Your task to perform on an android device: Open Amazon Image 0: 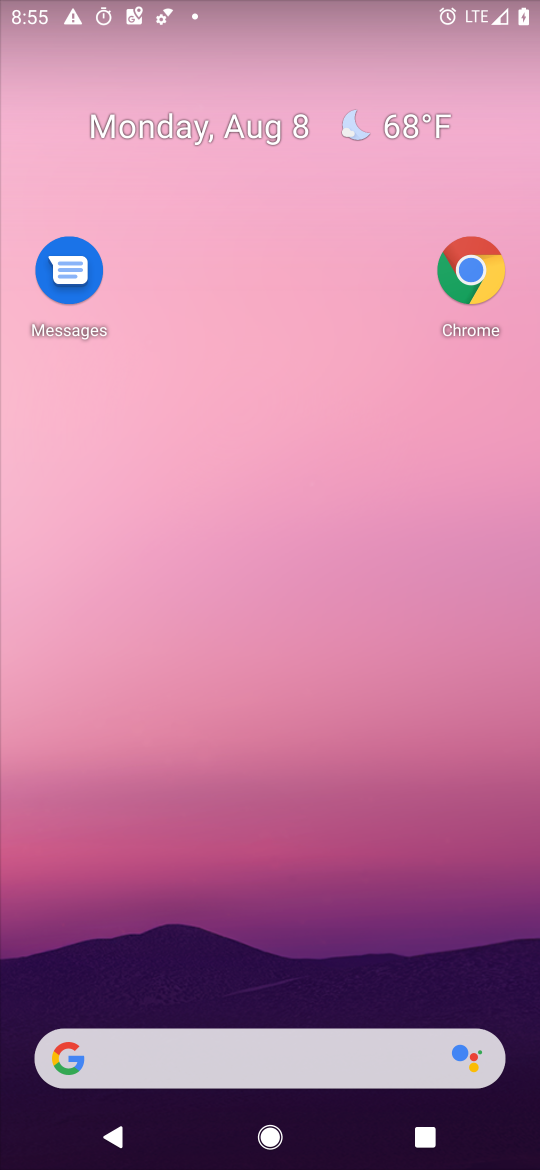
Step 0: drag from (284, 966) to (350, 121)
Your task to perform on an android device: Open Amazon Image 1: 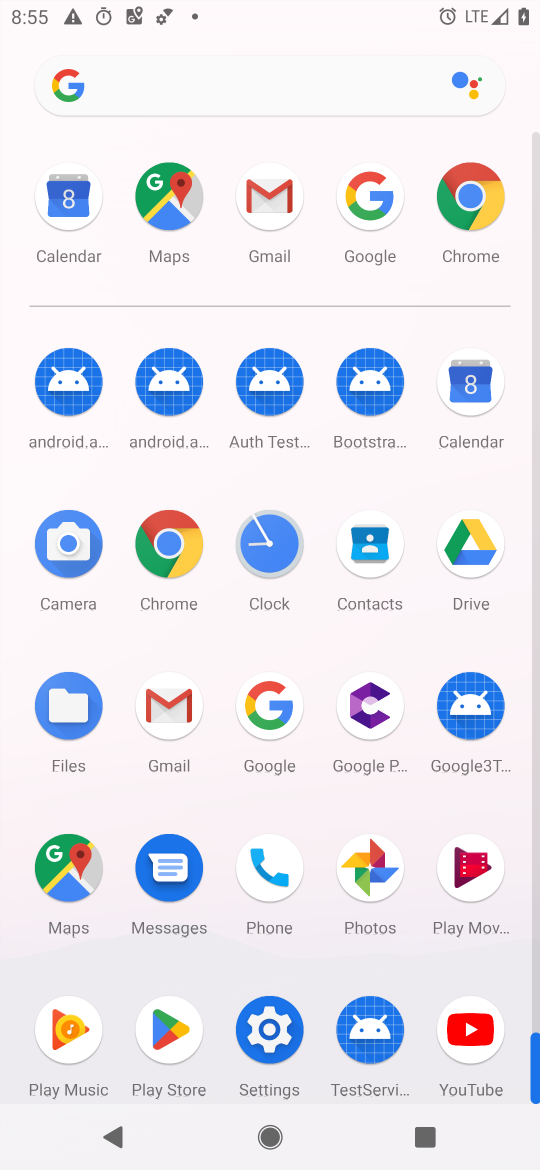
Step 1: click (480, 194)
Your task to perform on an android device: Open Amazon Image 2: 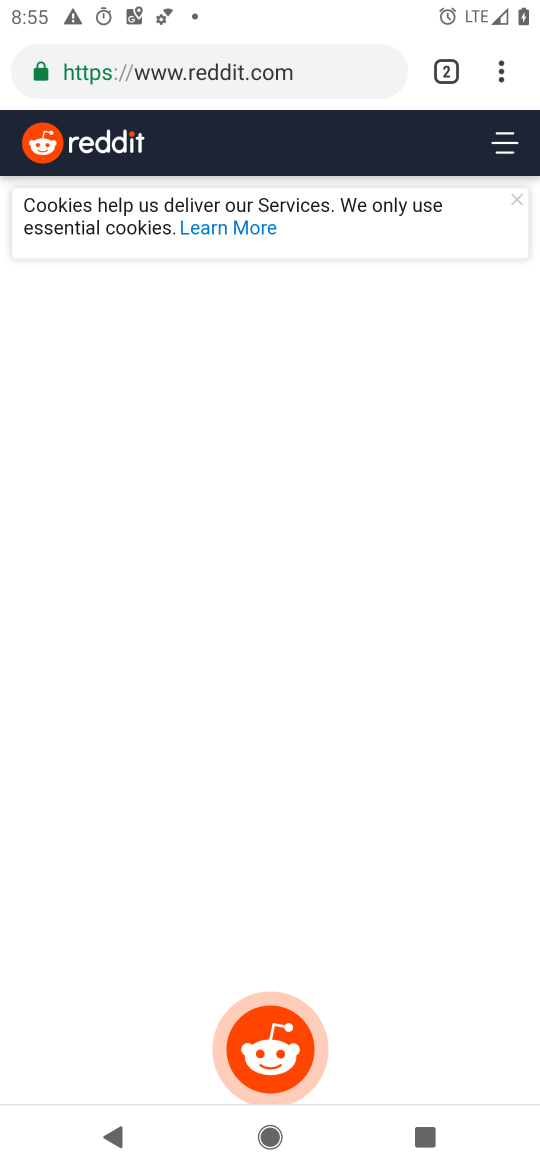
Step 2: click (127, 85)
Your task to perform on an android device: Open Amazon Image 3: 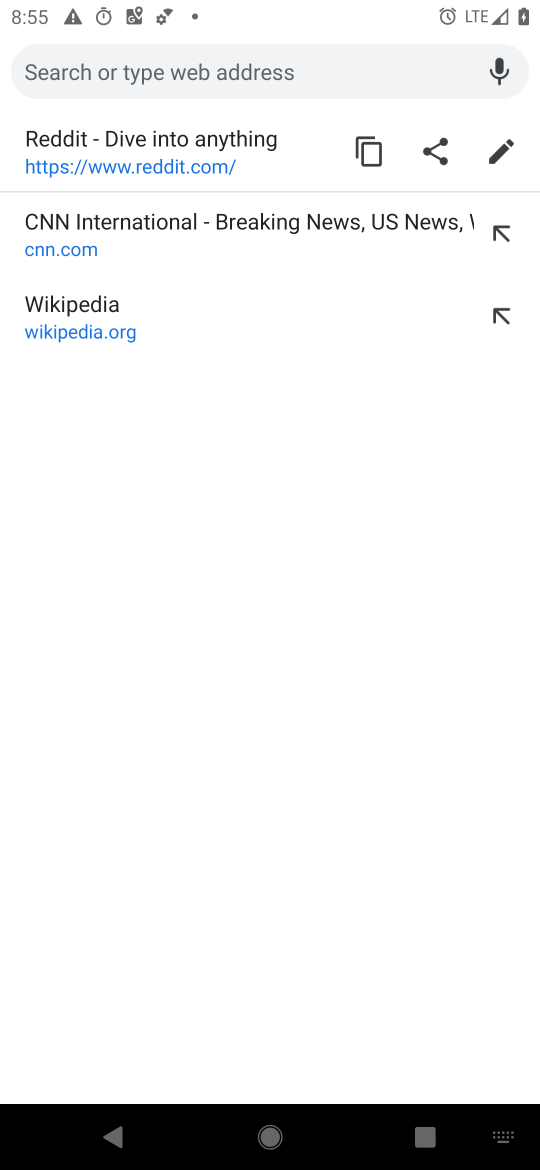
Step 3: type "amazon"
Your task to perform on an android device: Open Amazon Image 4: 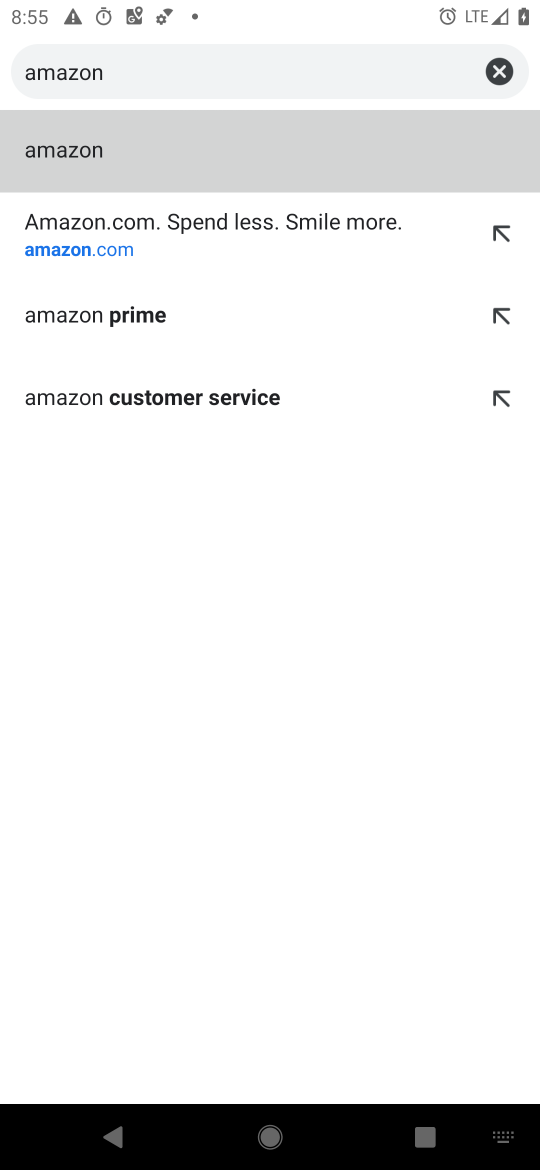
Step 4: click (111, 265)
Your task to perform on an android device: Open Amazon Image 5: 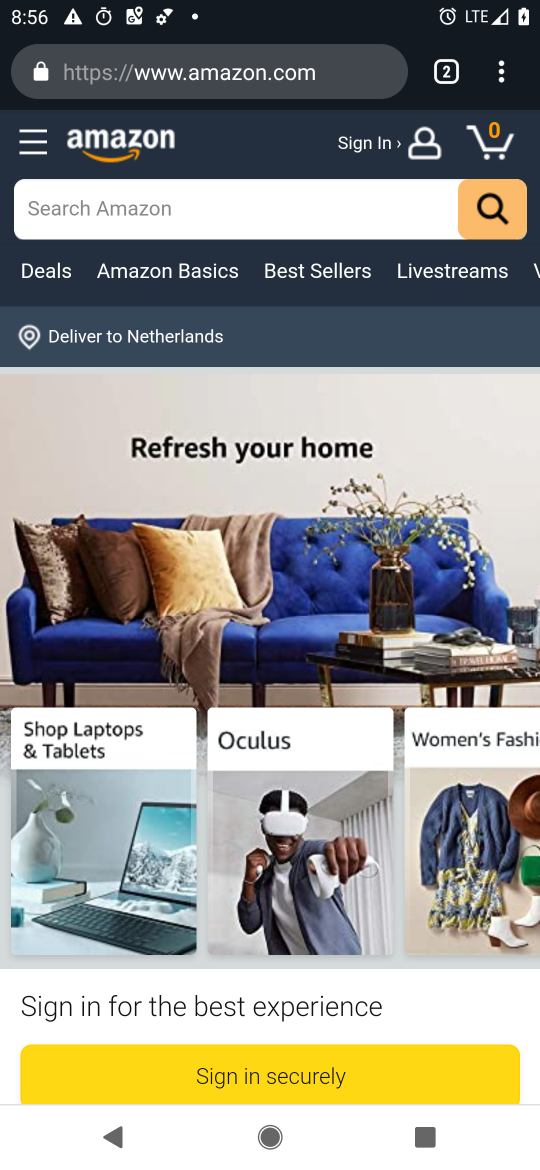
Step 5: task complete